Your task to perform on an android device: Open maps Image 0: 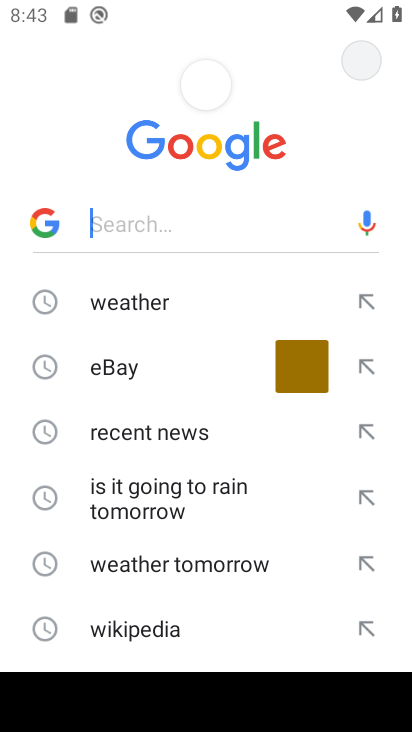
Step 0: press home button
Your task to perform on an android device: Open maps Image 1: 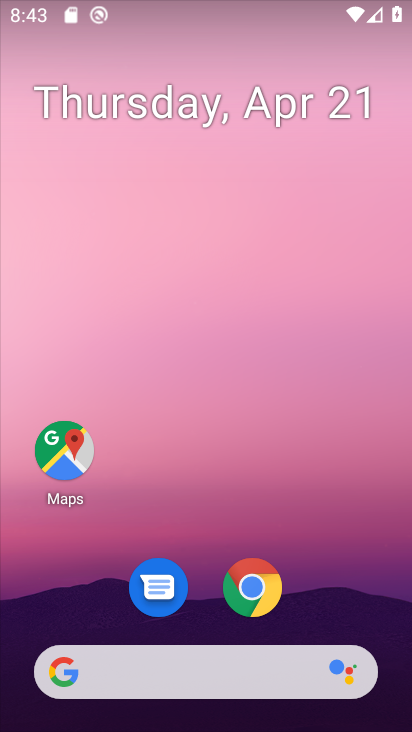
Step 1: drag from (366, 557) to (298, 68)
Your task to perform on an android device: Open maps Image 2: 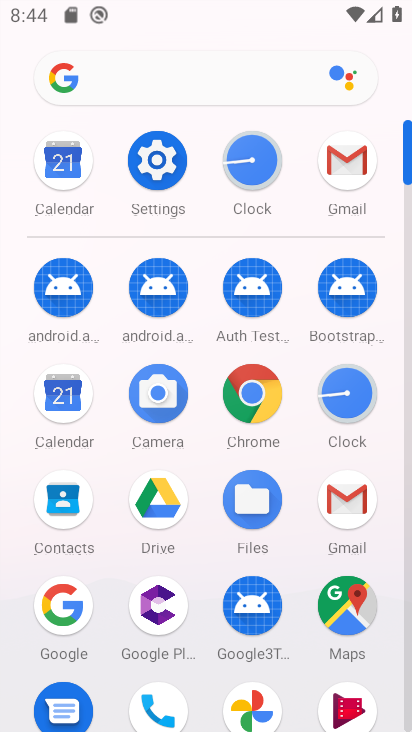
Step 2: click (337, 615)
Your task to perform on an android device: Open maps Image 3: 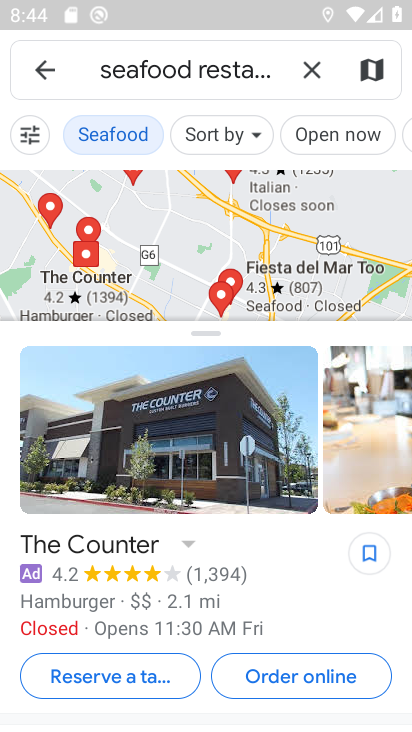
Step 3: click (42, 62)
Your task to perform on an android device: Open maps Image 4: 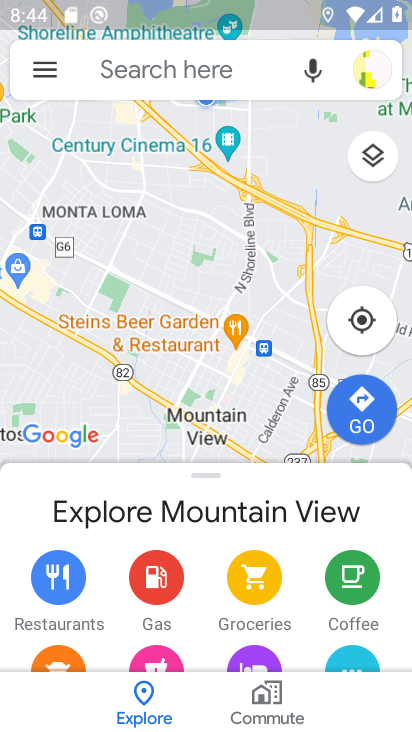
Step 4: task complete